Your task to perform on an android device: open chrome privacy settings Image 0: 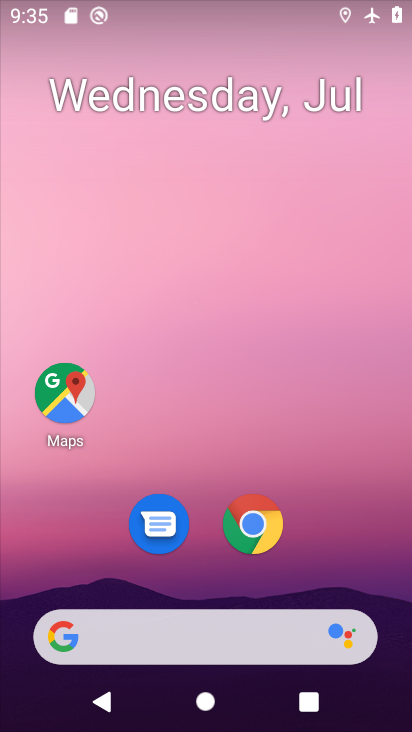
Step 0: click (256, 526)
Your task to perform on an android device: open chrome privacy settings Image 1: 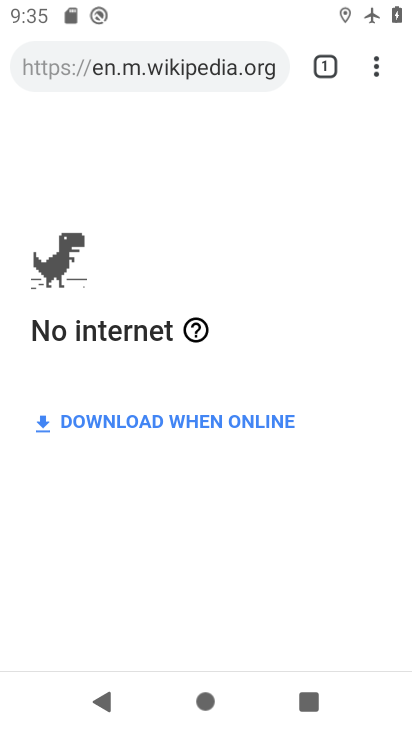
Step 1: click (379, 71)
Your task to perform on an android device: open chrome privacy settings Image 2: 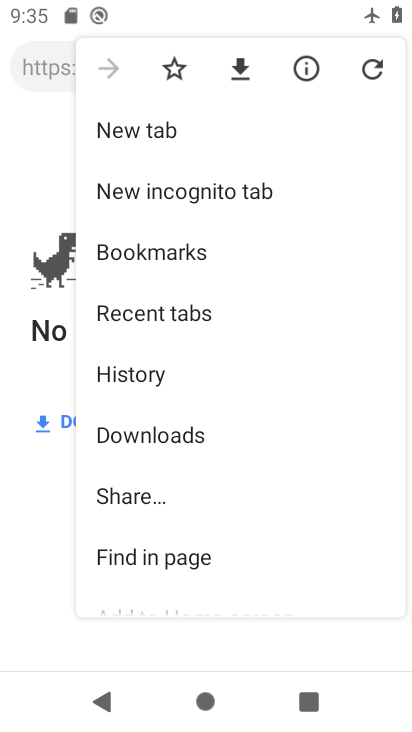
Step 2: drag from (254, 474) to (276, 145)
Your task to perform on an android device: open chrome privacy settings Image 3: 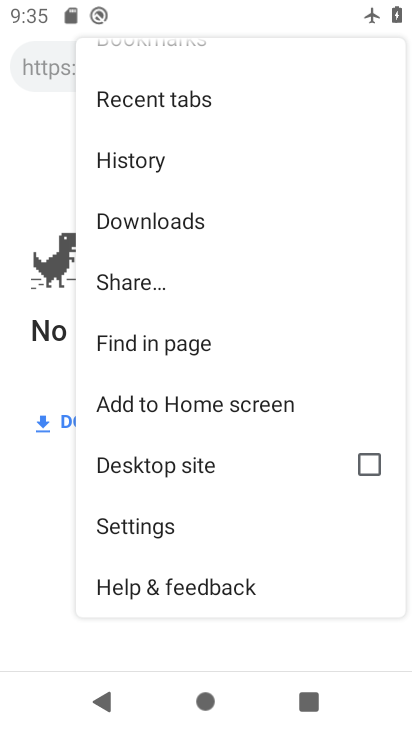
Step 3: click (169, 525)
Your task to perform on an android device: open chrome privacy settings Image 4: 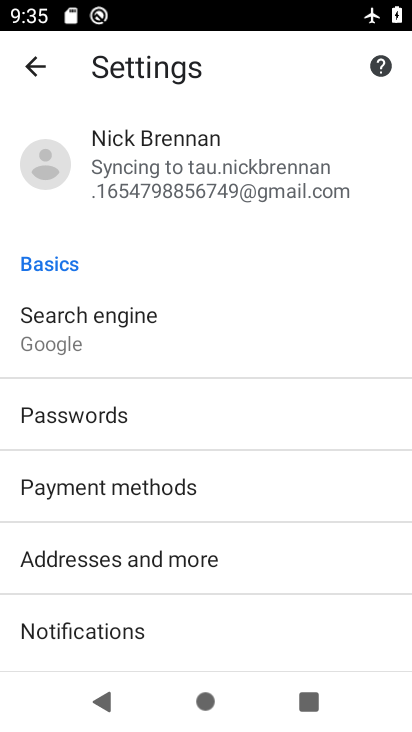
Step 4: drag from (209, 515) to (222, 167)
Your task to perform on an android device: open chrome privacy settings Image 5: 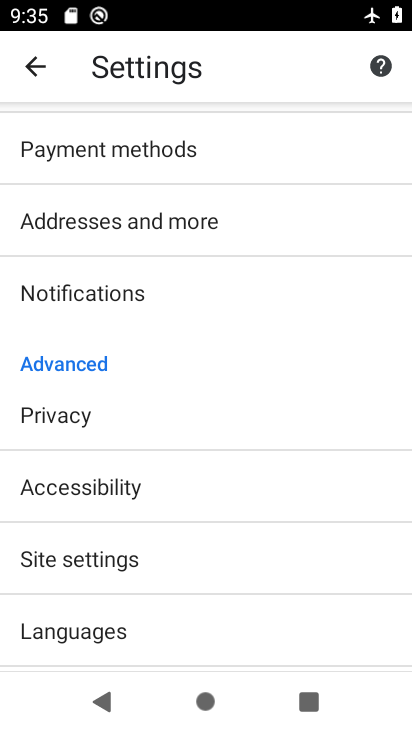
Step 5: click (73, 420)
Your task to perform on an android device: open chrome privacy settings Image 6: 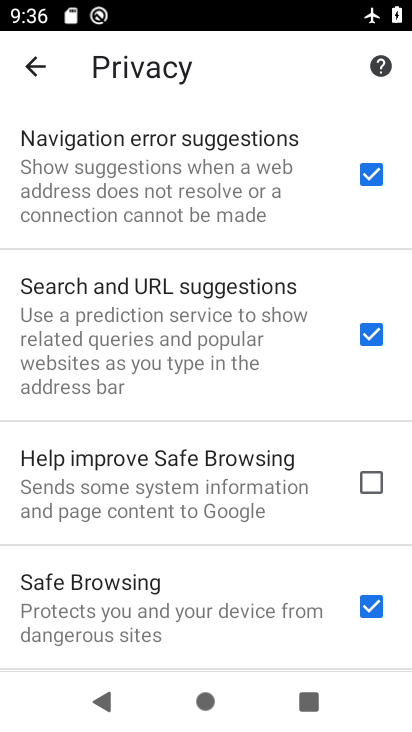
Step 6: task complete